Your task to perform on an android device: Go to notification settings Image 0: 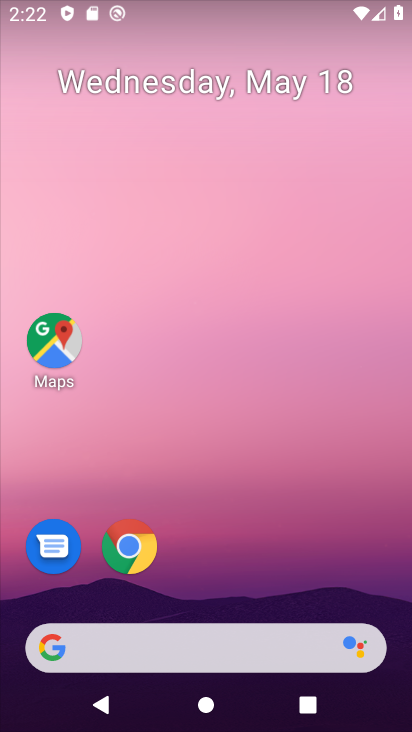
Step 0: drag from (231, 441) to (227, 198)
Your task to perform on an android device: Go to notification settings Image 1: 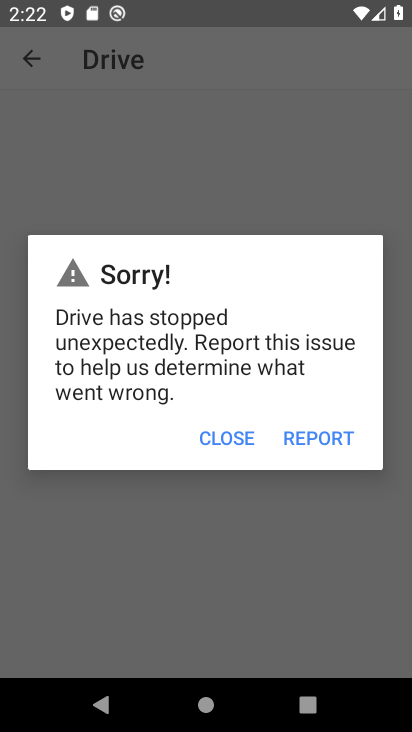
Step 1: press home button
Your task to perform on an android device: Go to notification settings Image 2: 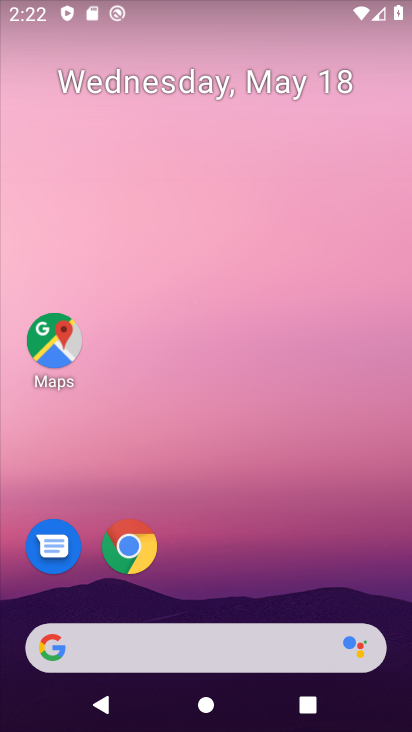
Step 2: drag from (225, 720) to (241, 385)
Your task to perform on an android device: Go to notification settings Image 3: 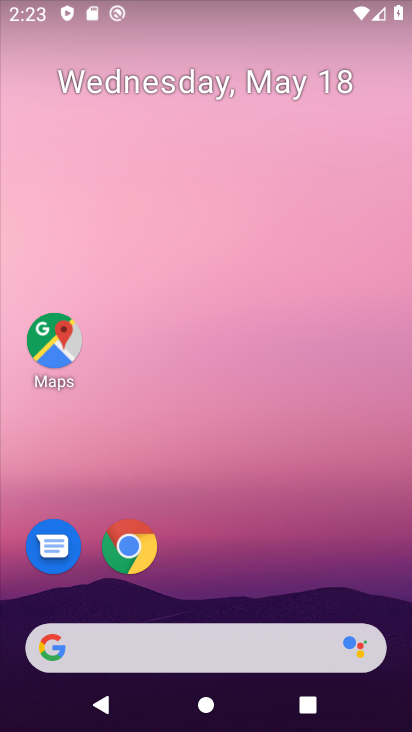
Step 3: drag from (230, 626) to (220, 134)
Your task to perform on an android device: Go to notification settings Image 4: 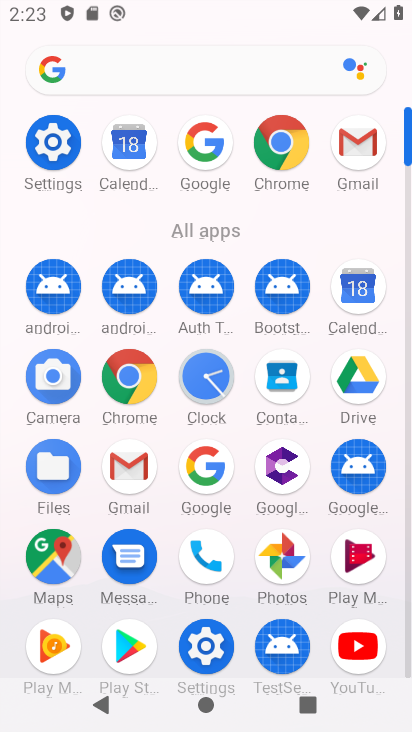
Step 4: click (54, 129)
Your task to perform on an android device: Go to notification settings Image 5: 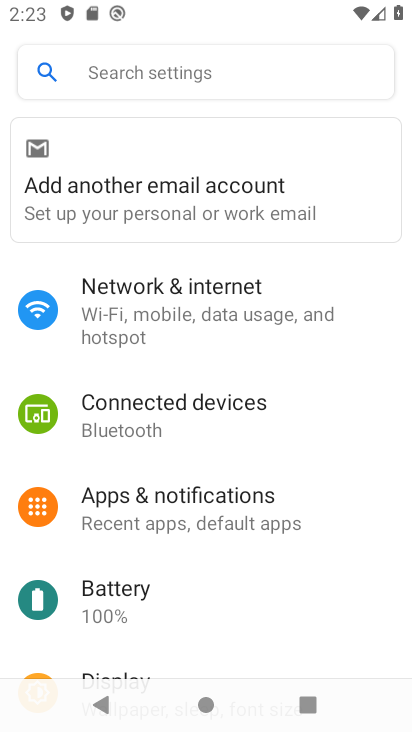
Step 5: click (184, 505)
Your task to perform on an android device: Go to notification settings Image 6: 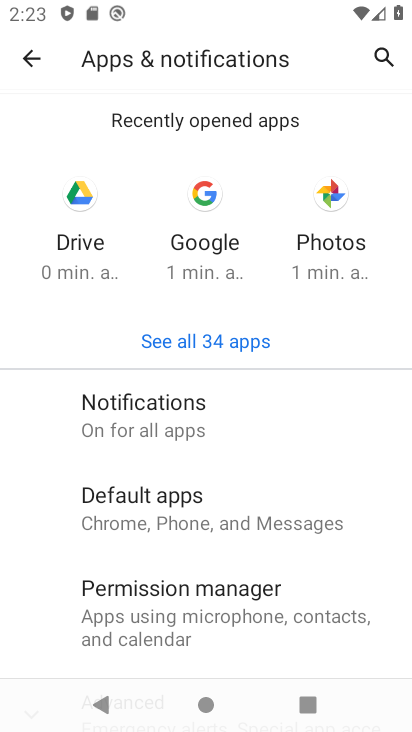
Step 6: click (129, 413)
Your task to perform on an android device: Go to notification settings Image 7: 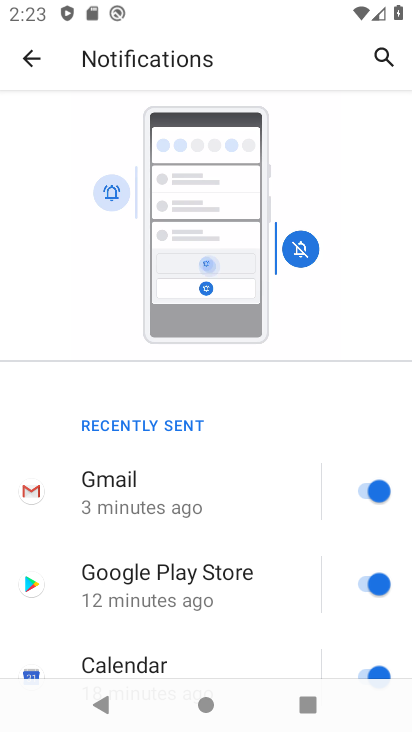
Step 7: drag from (202, 657) to (203, 285)
Your task to perform on an android device: Go to notification settings Image 8: 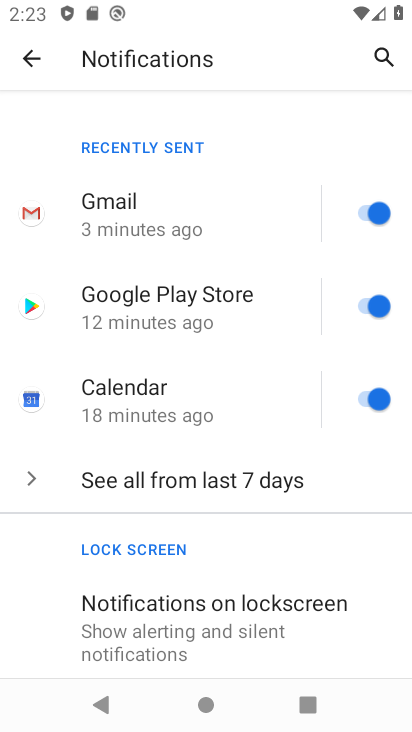
Step 8: drag from (209, 633) to (206, 364)
Your task to perform on an android device: Go to notification settings Image 9: 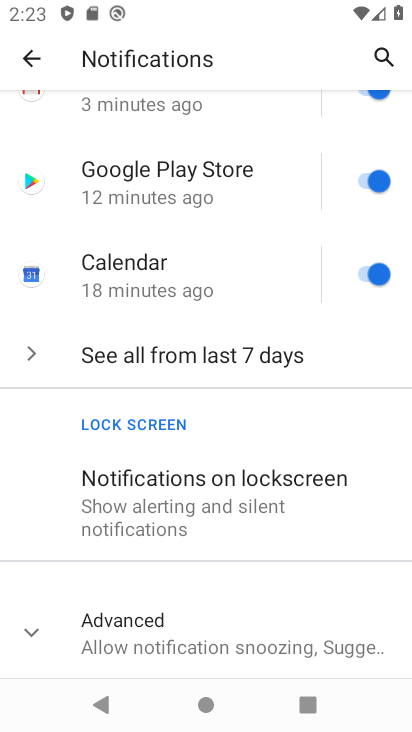
Step 9: click (111, 625)
Your task to perform on an android device: Go to notification settings Image 10: 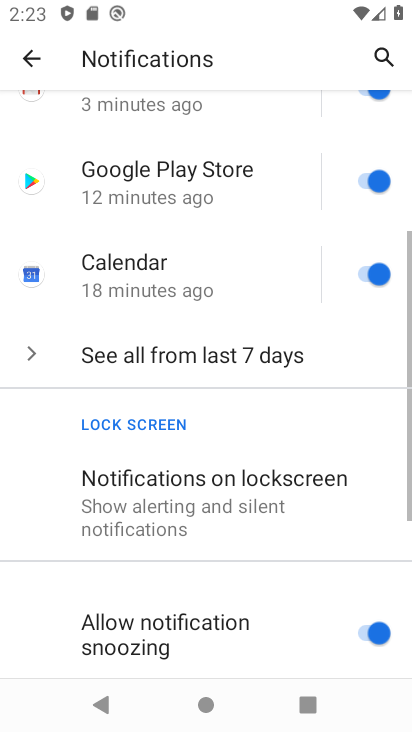
Step 10: drag from (248, 621) to (257, 302)
Your task to perform on an android device: Go to notification settings Image 11: 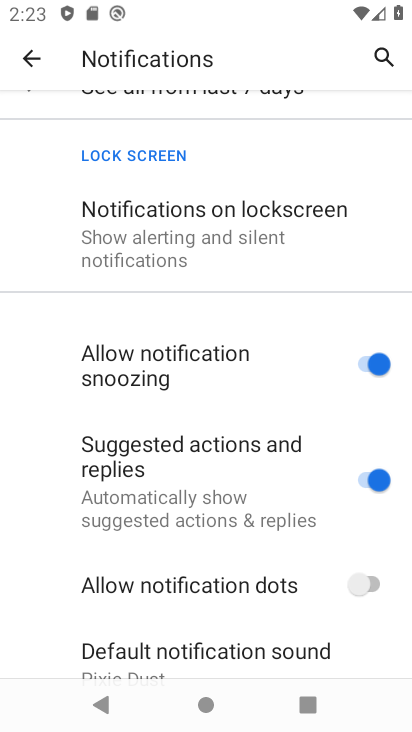
Step 11: click (366, 357)
Your task to perform on an android device: Go to notification settings Image 12: 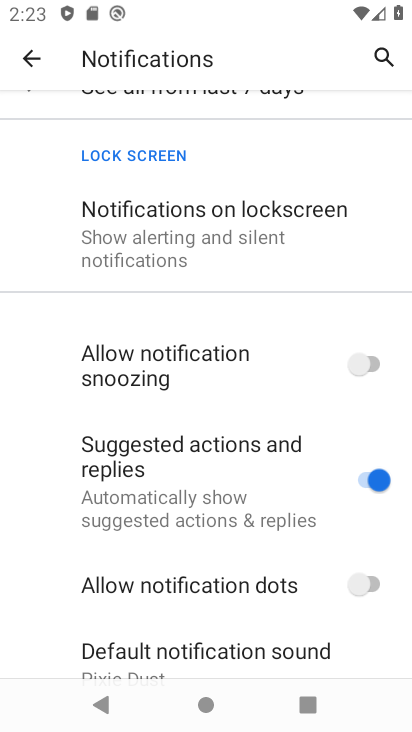
Step 12: task complete